Your task to perform on an android device: visit the assistant section in the google photos Image 0: 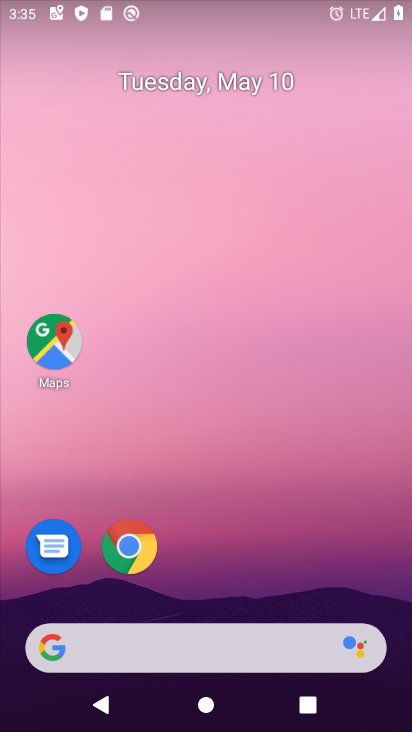
Step 0: drag from (216, 595) to (280, 71)
Your task to perform on an android device: visit the assistant section in the google photos Image 1: 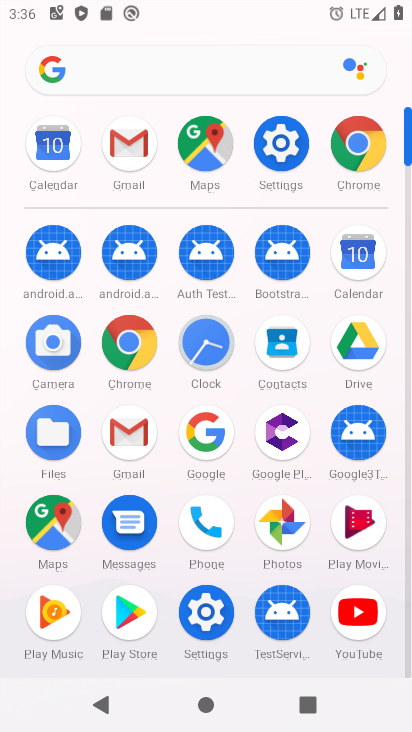
Step 1: click (274, 539)
Your task to perform on an android device: visit the assistant section in the google photos Image 2: 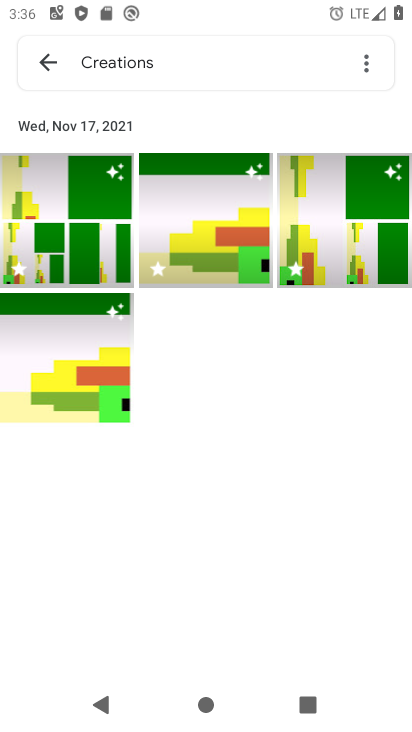
Step 2: click (51, 67)
Your task to perform on an android device: visit the assistant section in the google photos Image 3: 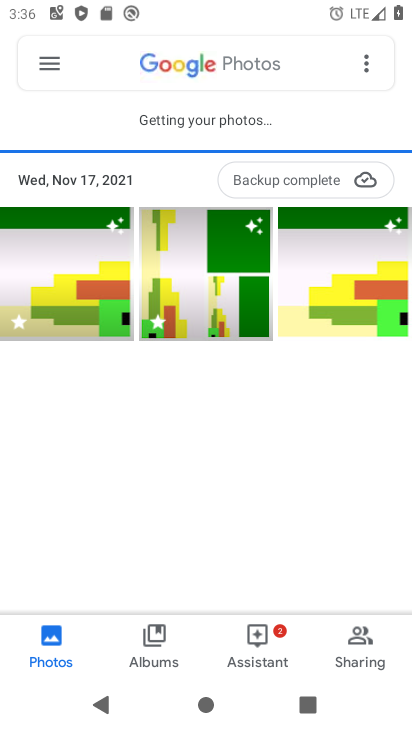
Step 3: click (269, 640)
Your task to perform on an android device: visit the assistant section in the google photos Image 4: 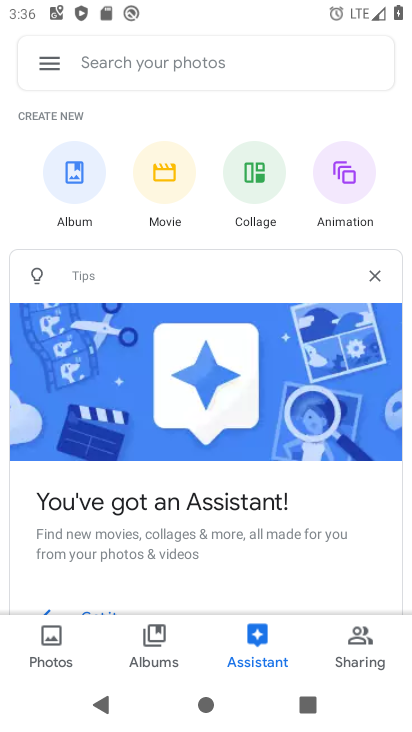
Step 4: task complete